Your task to perform on an android device: check storage Image 0: 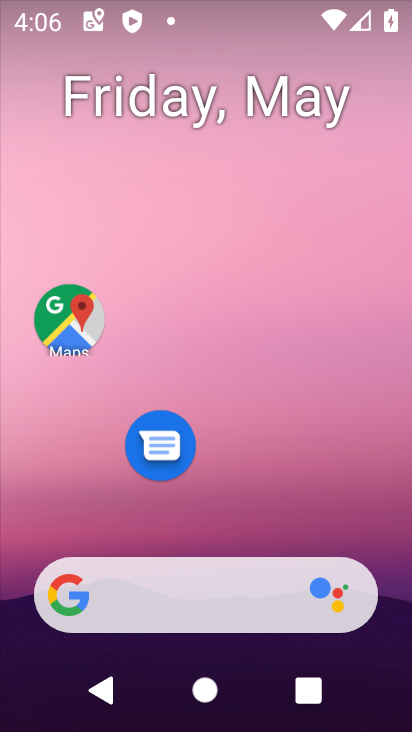
Step 0: drag from (224, 526) to (265, 0)
Your task to perform on an android device: check storage Image 1: 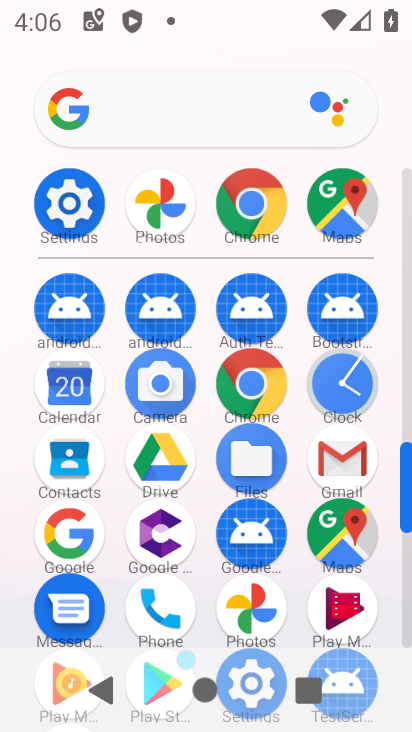
Step 1: click (69, 222)
Your task to perform on an android device: check storage Image 2: 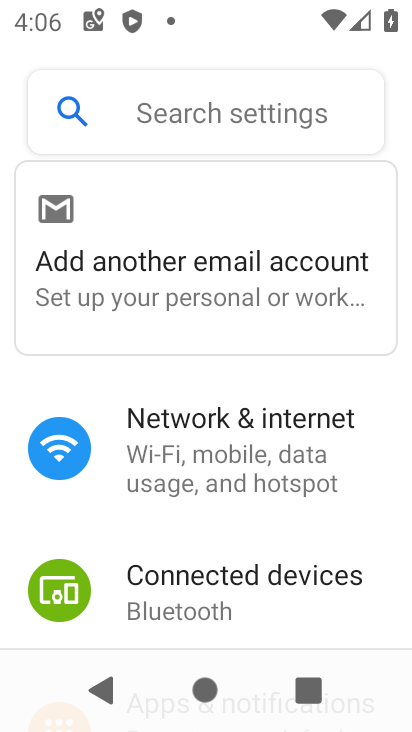
Step 2: drag from (183, 536) to (226, 129)
Your task to perform on an android device: check storage Image 3: 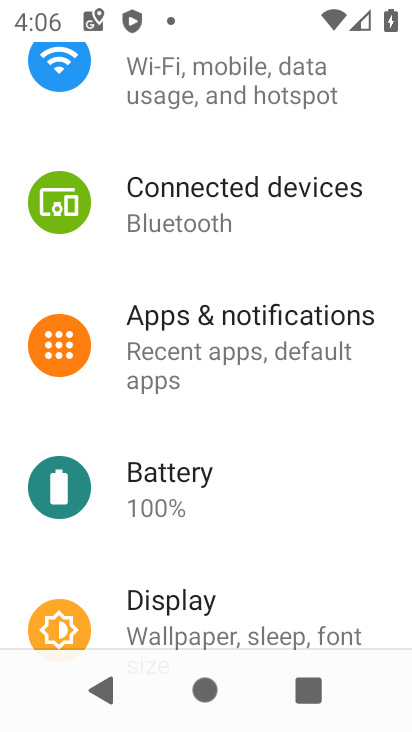
Step 3: drag from (179, 407) to (228, 67)
Your task to perform on an android device: check storage Image 4: 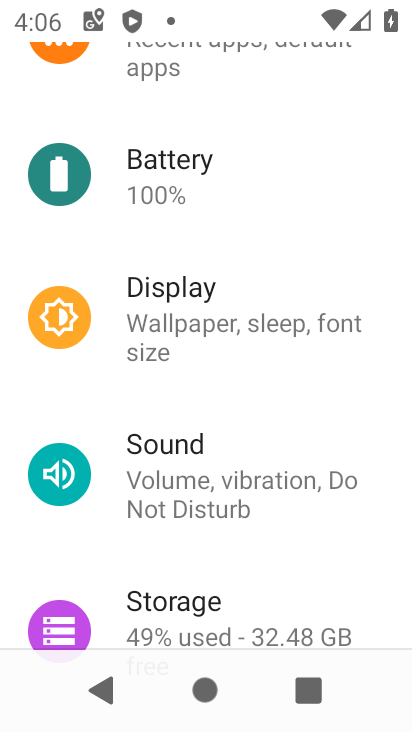
Step 4: click (188, 599)
Your task to perform on an android device: check storage Image 5: 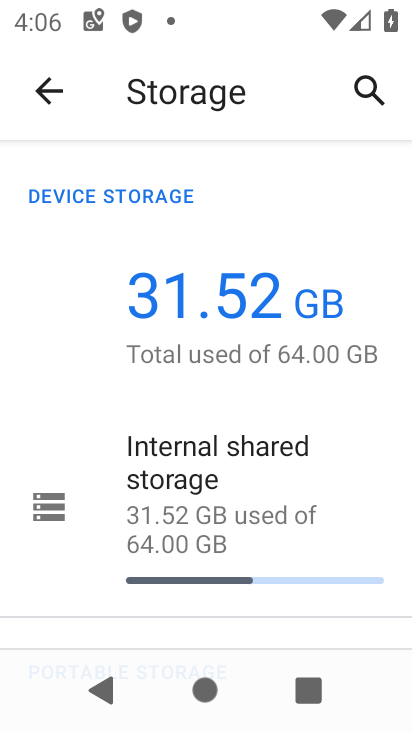
Step 5: click (167, 483)
Your task to perform on an android device: check storage Image 6: 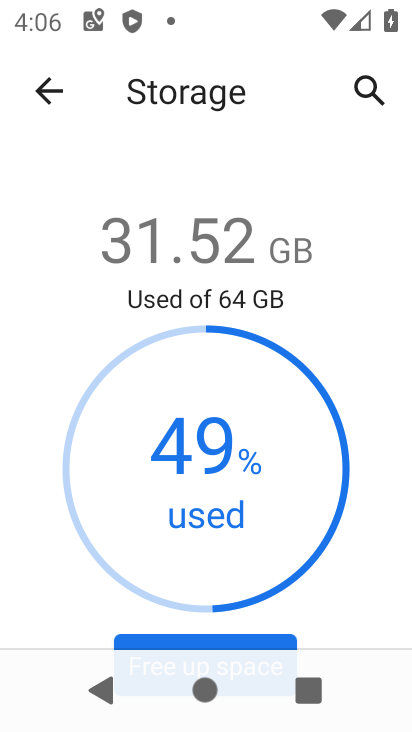
Step 6: task complete